Your task to perform on an android device: Open Reddit.com Image 0: 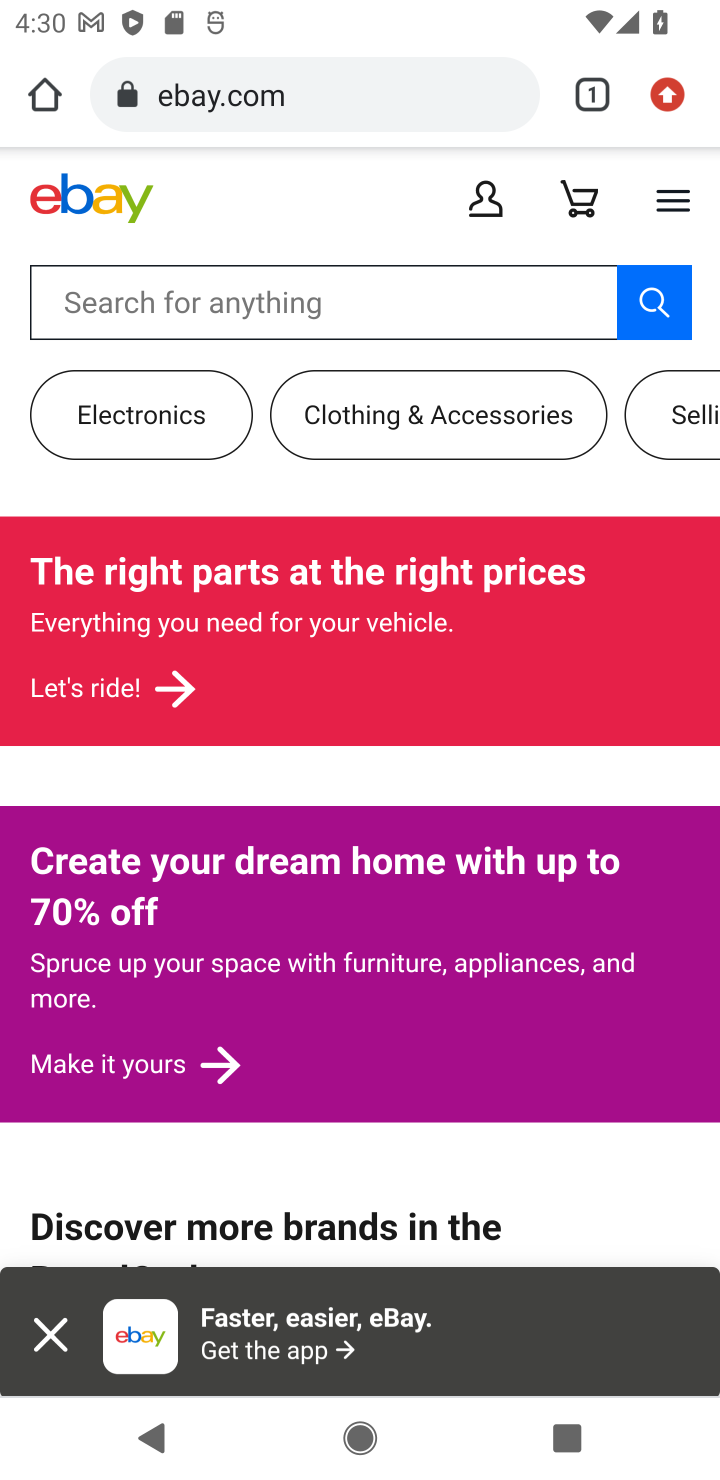
Step 0: click (344, 88)
Your task to perform on an android device: Open Reddit.com Image 1: 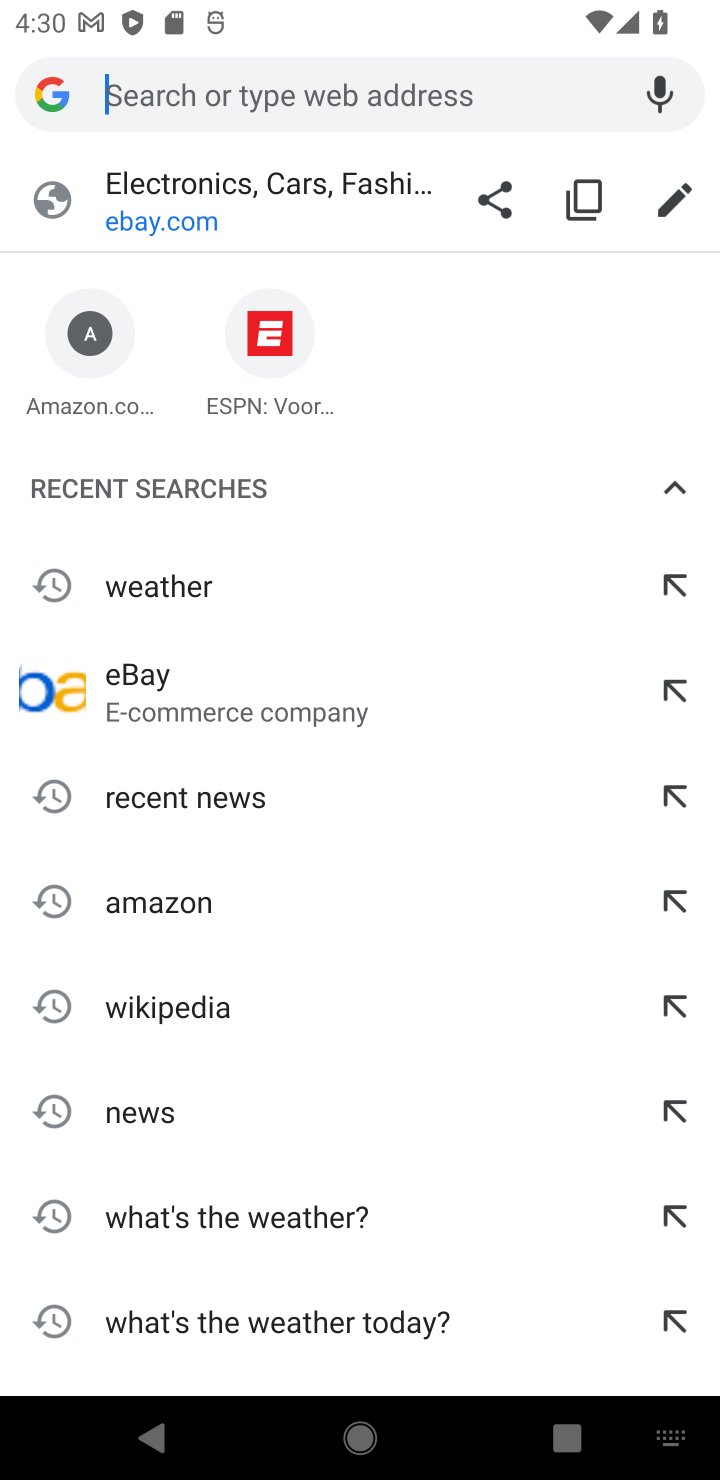
Step 1: type "redditc.com"
Your task to perform on an android device: Open Reddit.com Image 2: 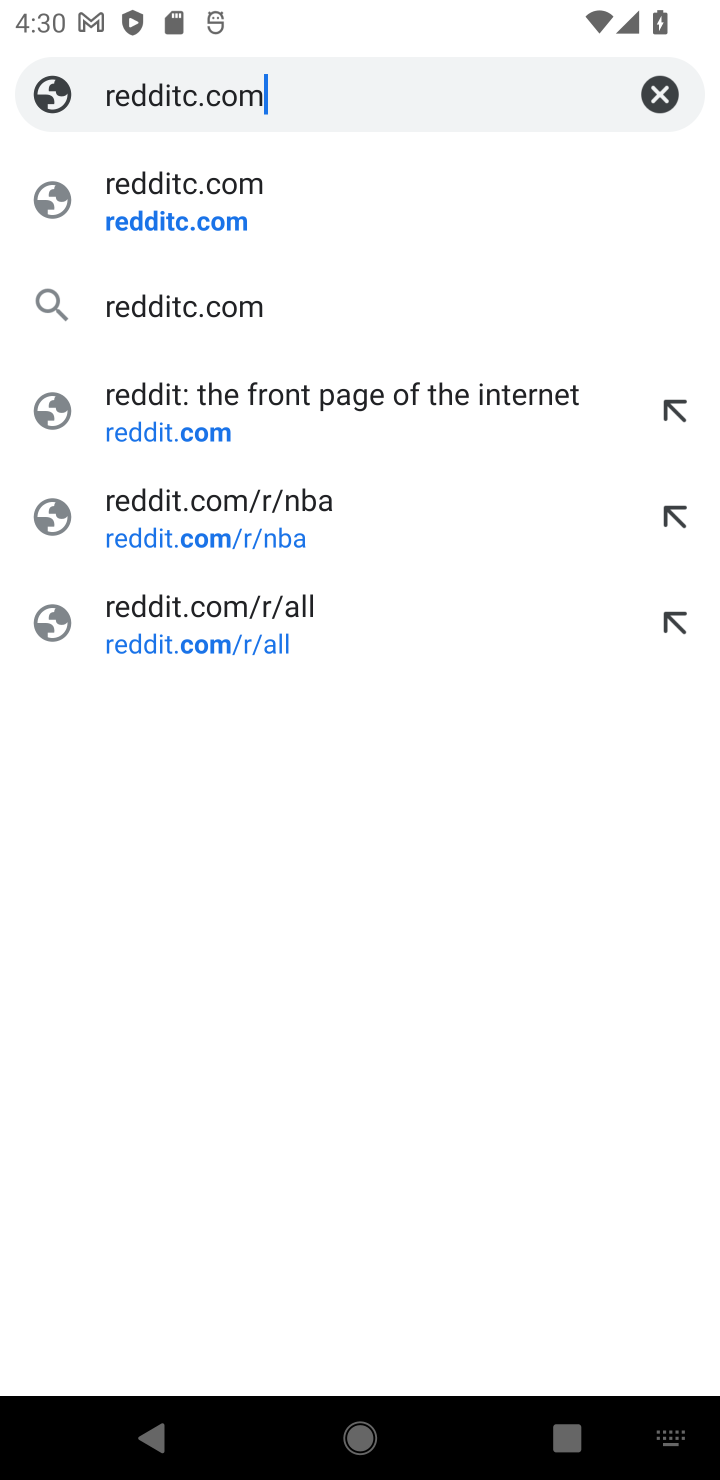
Step 2: click (214, 441)
Your task to perform on an android device: Open Reddit.com Image 3: 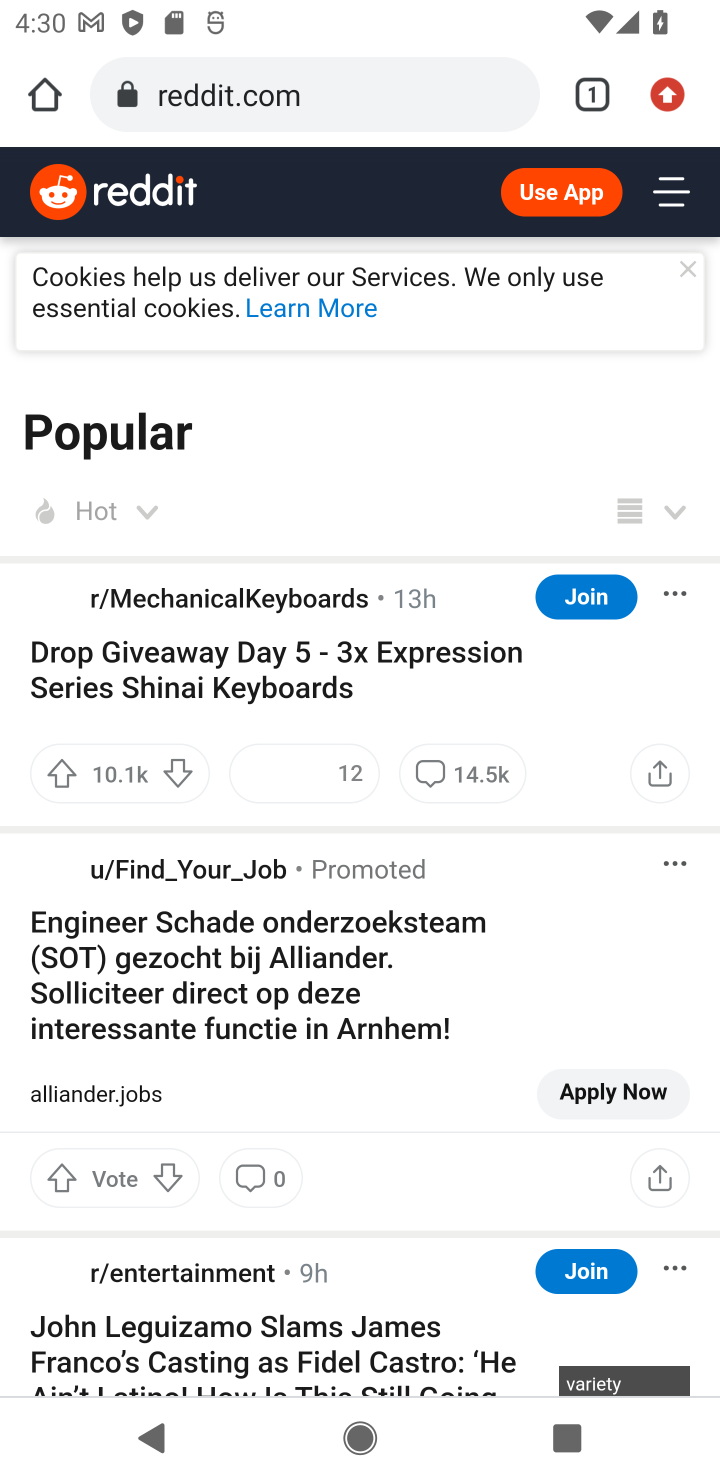
Step 3: task complete